Your task to perform on an android device: turn vacation reply on in the gmail app Image 0: 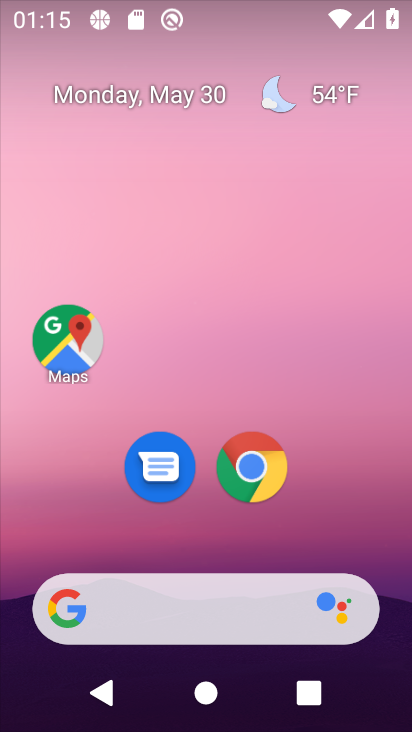
Step 0: click (90, 341)
Your task to perform on an android device: turn vacation reply on in the gmail app Image 1: 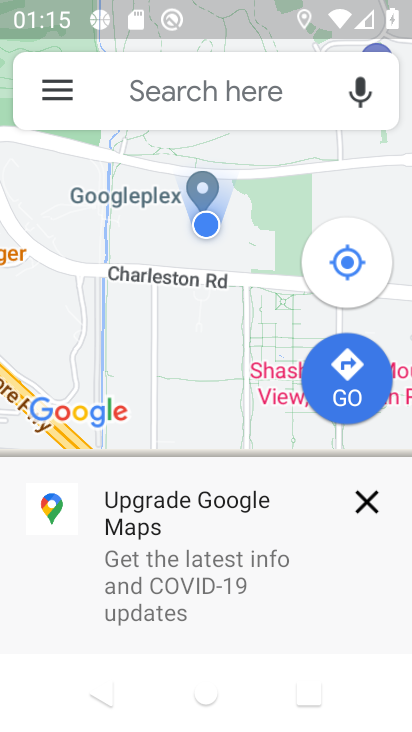
Step 1: press home button
Your task to perform on an android device: turn vacation reply on in the gmail app Image 2: 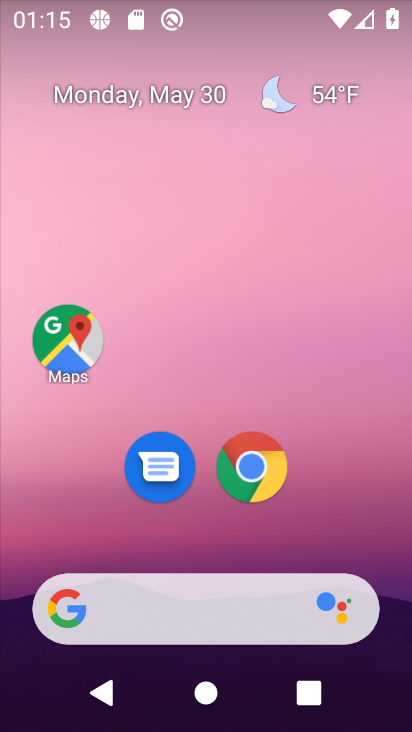
Step 2: drag from (198, 559) to (146, 59)
Your task to perform on an android device: turn vacation reply on in the gmail app Image 3: 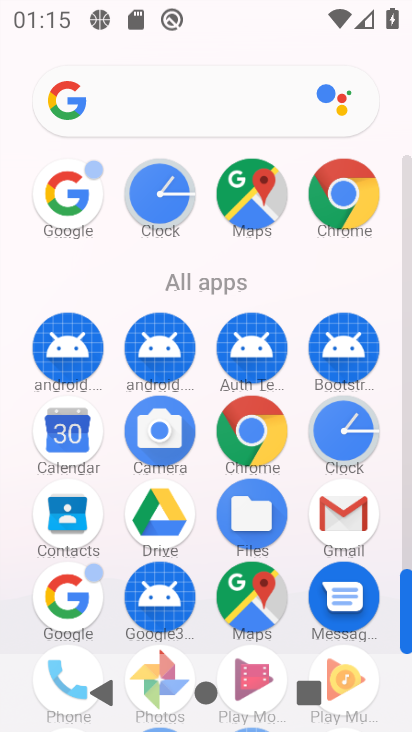
Step 3: click (367, 530)
Your task to perform on an android device: turn vacation reply on in the gmail app Image 4: 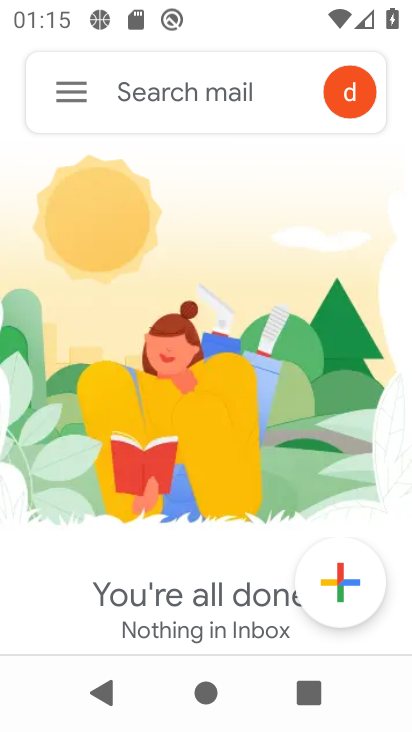
Step 4: click (77, 90)
Your task to perform on an android device: turn vacation reply on in the gmail app Image 5: 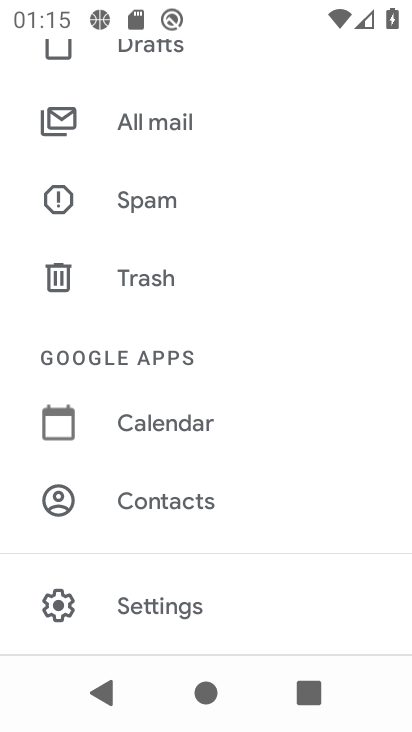
Step 5: click (152, 612)
Your task to perform on an android device: turn vacation reply on in the gmail app Image 6: 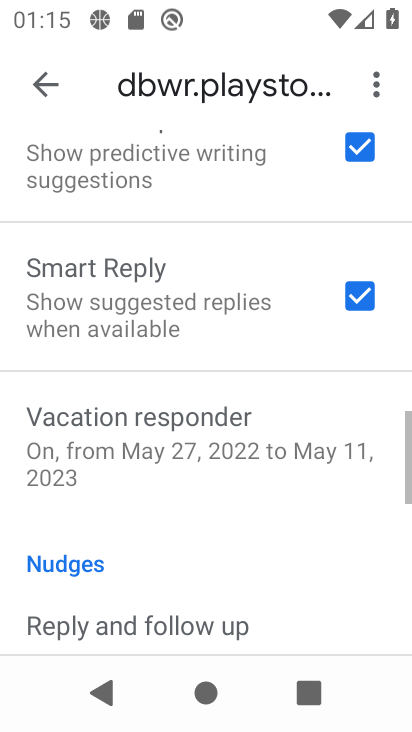
Step 6: click (257, 471)
Your task to perform on an android device: turn vacation reply on in the gmail app Image 7: 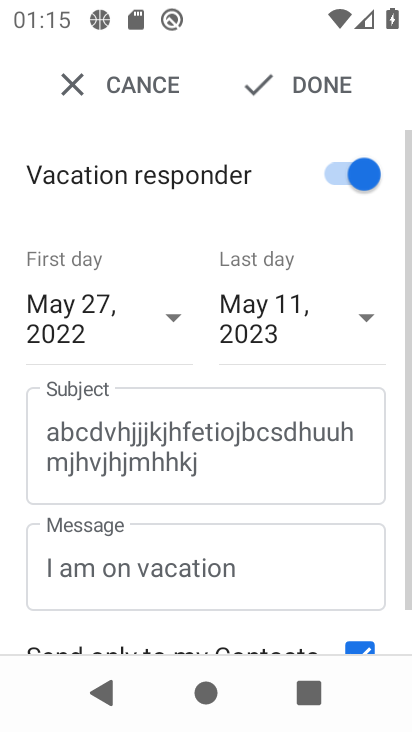
Step 7: click (325, 94)
Your task to perform on an android device: turn vacation reply on in the gmail app Image 8: 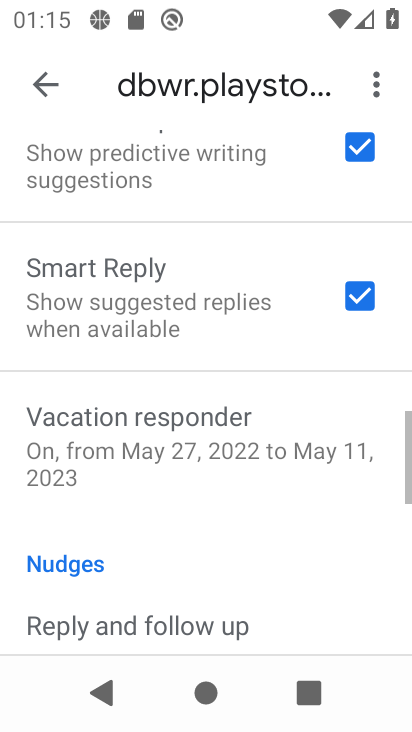
Step 8: task complete